Your task to perform on an android device: change alarm snooze length Image 0: 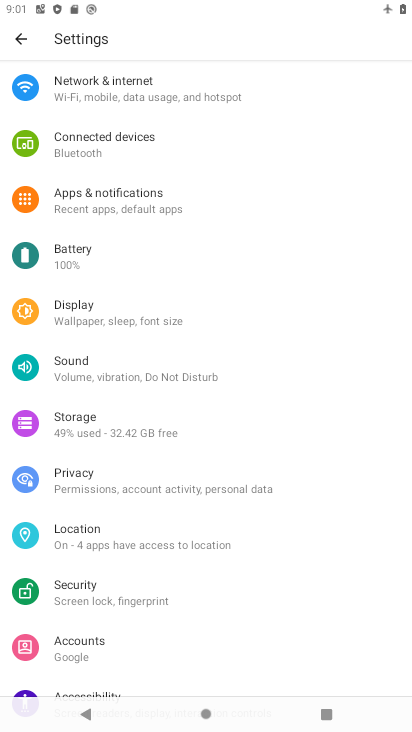
Step 0: press home button
Your task to perform on an android device: change alarm snooze length Image 1: 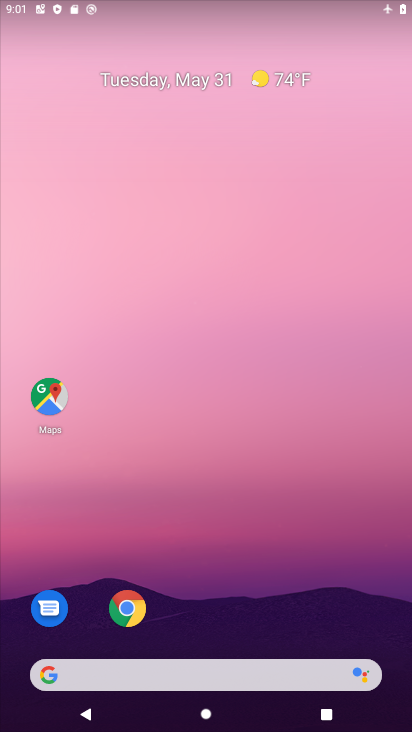
Step 1: drag from (218, 652) to (152, 57)
Your task to perform on an android device: change alarm snooze length Image 2: 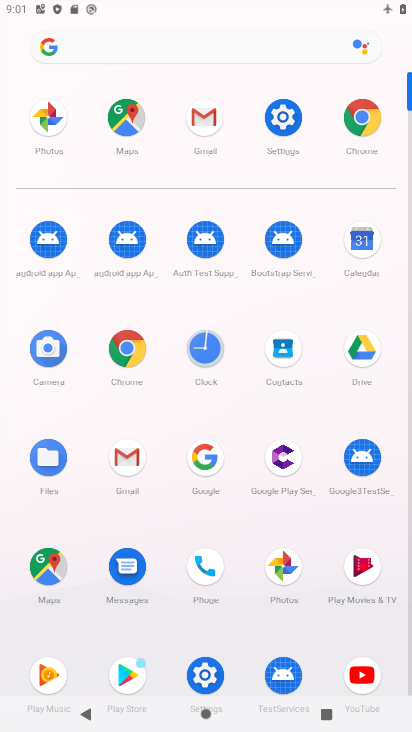
Step 2: click (207, 354)
Your task to perform on an android device: change alarm snooze length Image 3: 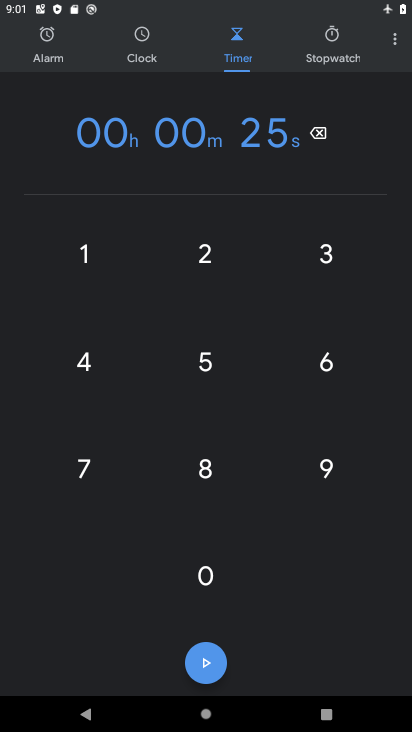
Step 3: click (395, 34)
Your task to perform on an android device: change alarm snooze length Image 4: 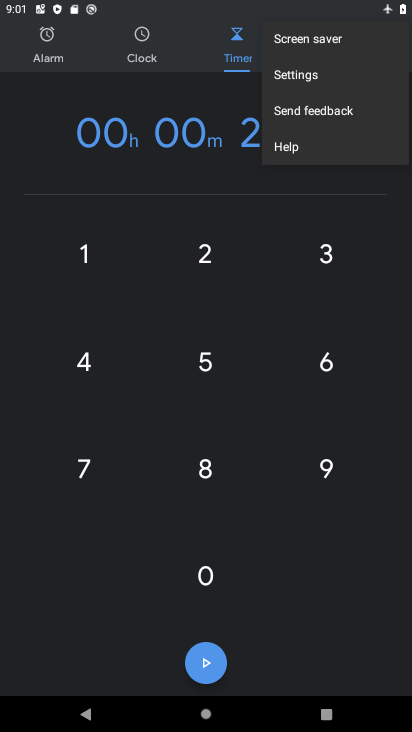
Step 4: click (297, 73)
Your task to perform on an android device: change alarm snooze length Image 5: 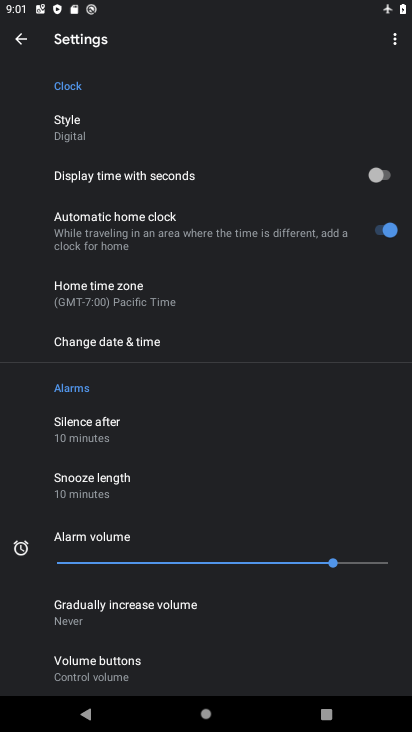
Step 5: drag from (153, 615) to (88, 338)
Your task to perform on an android device: change alarm snooze length Image 6: 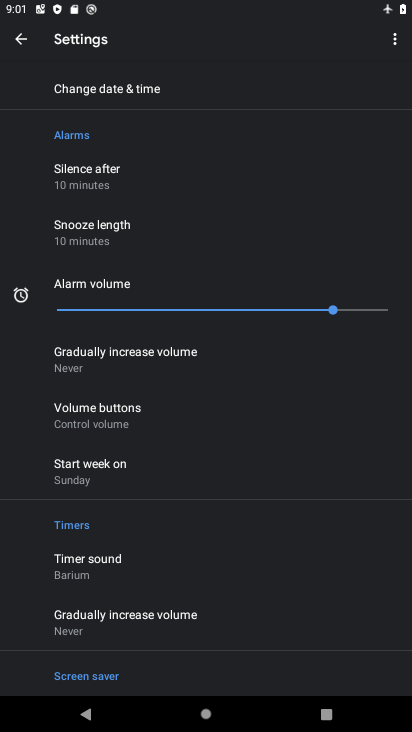
Step 6: click (78, 243)
Your task to perform on an android device: change alarm snooze length Image 7: 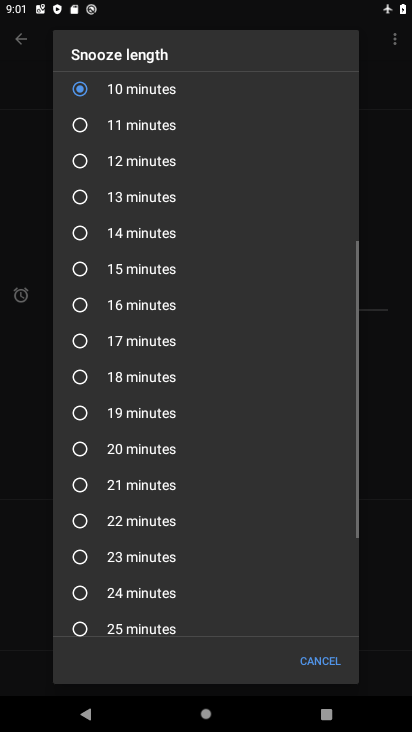
Step 7: click (112, 114)
Your task to perform on an android device: change alarm snooze length Image 8: 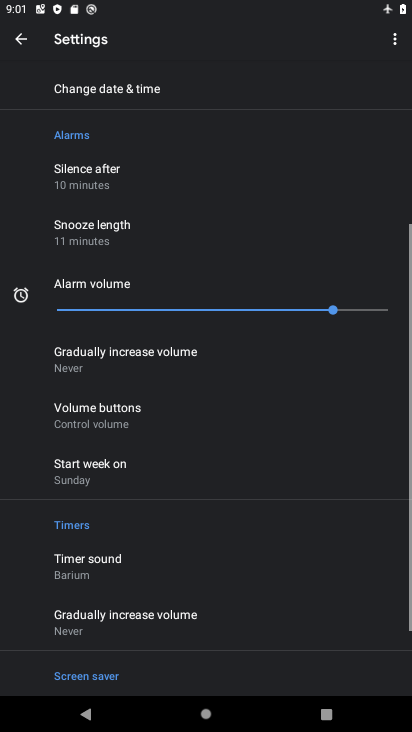
Step 8: task complete